Your task to perform on an android device: find photos in the google photos app Image 0: 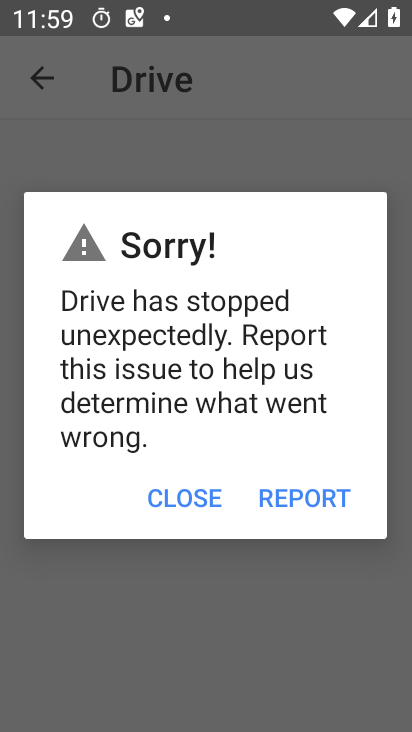
Step 0: press home button
Your task to perform on an android device: find photos in the google photos app Image 1: 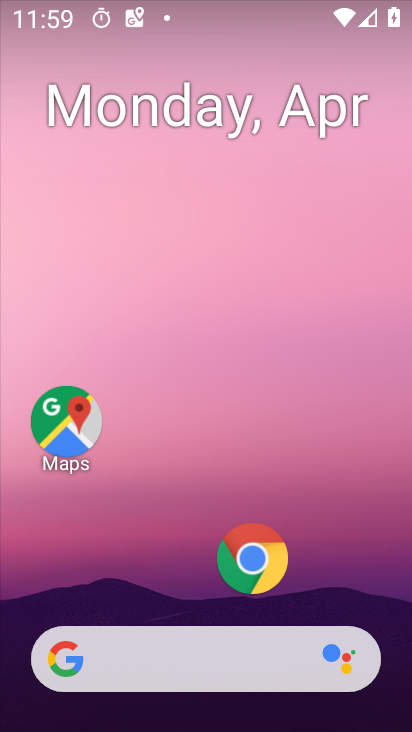
Step 1: drag from (164, 610) to (179, 98)
Your task to perform on an android device: find photos in the google photos app Image 2: 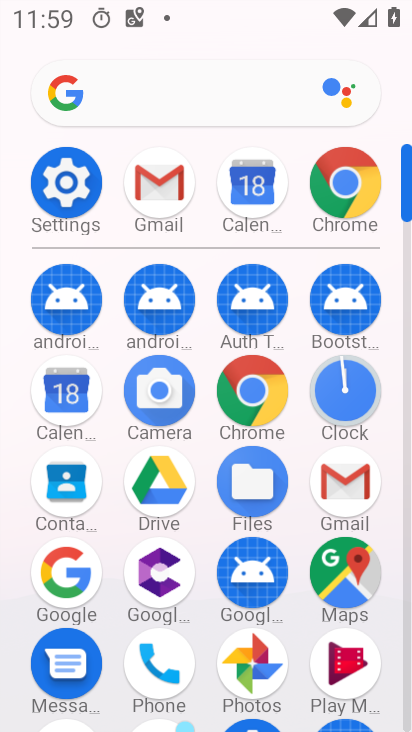
Step 2: click (255, 662)
Your task to perform on an android device: find photos in the google photos app Image 3: 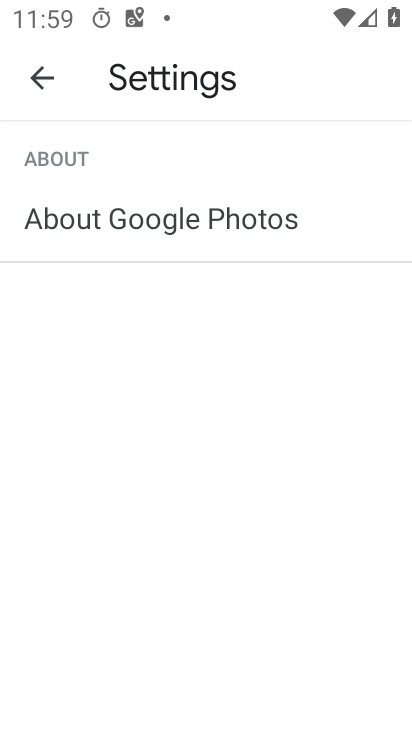
Step 3: click (42, 84)
Your task to perform on an android device: find photos in the google photos app Image 4: 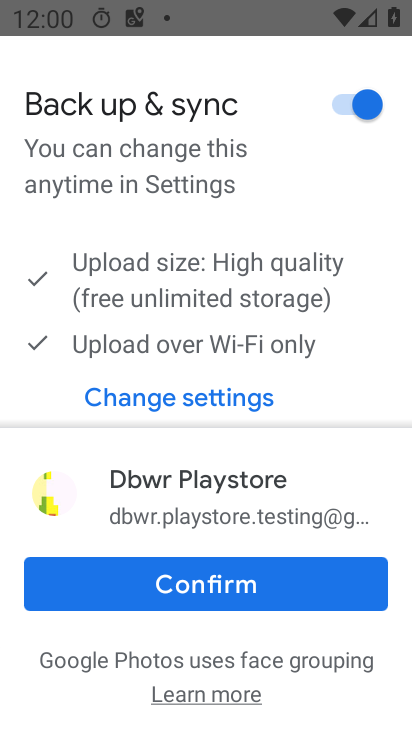
Step 4: click (237, 589)
Your task to perform on an android device: find photos in the google photos app Image 5: 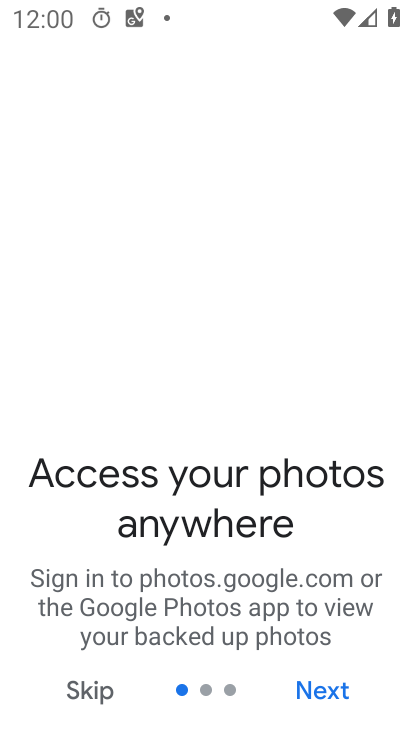
Step 5: click (313, 684)
Your task to perform on an android device: find photos in the google photos app Image 6: 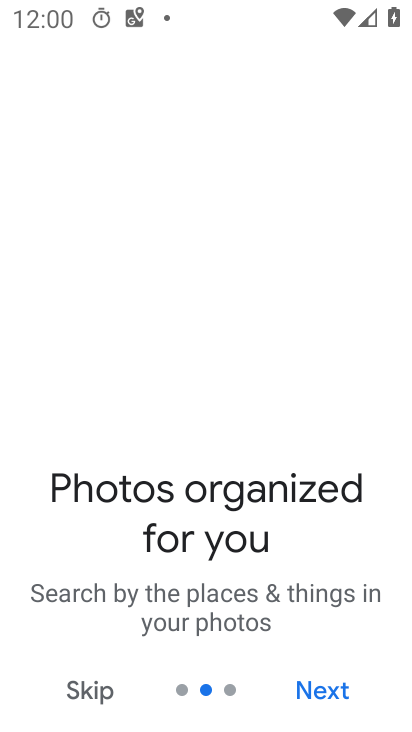
Step 6: click (315, 691)
Your task to perform on an android device: find photos in the google photos app Image 7: 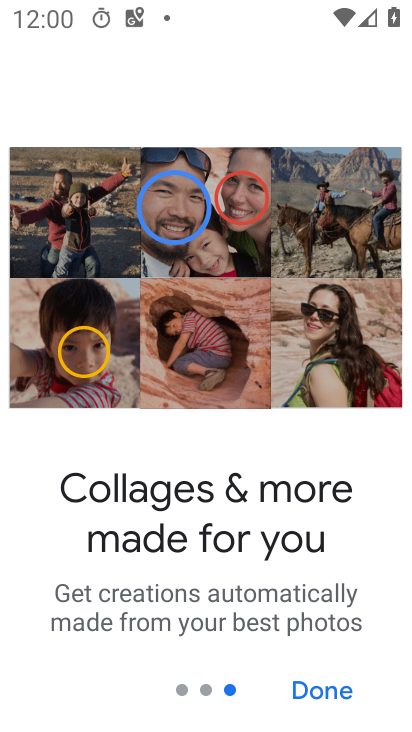
Step 7: click (314, 687)
Your task to perform on an android device: find photos in the google photos app Image 8: 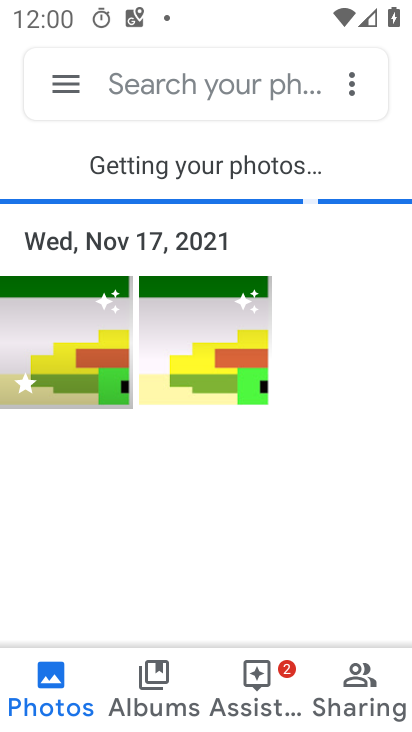
Step 8: task complete